Your task to perform on an android device: What's the weather going to be this weekend? Image 0: 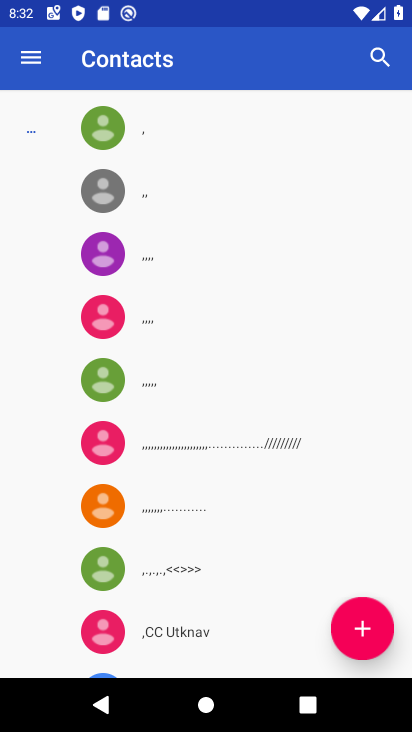
Step 0: press home button
Your task to perform on an android device: What's the weather going to be this weekend? Image 1: 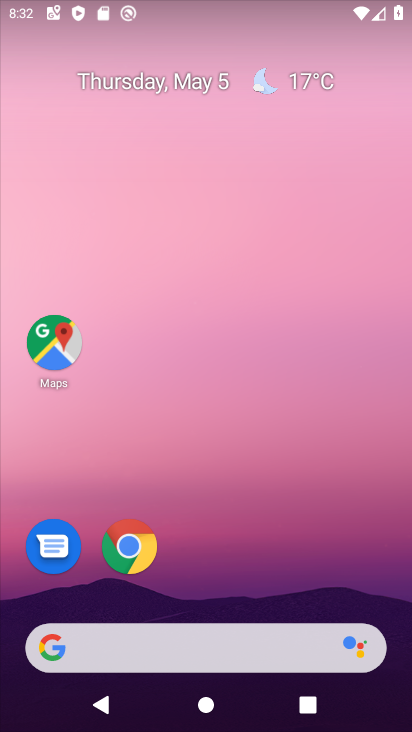
Step 1: click (304, 87)
Your task to perform on an android device: What's the weather going to be this weekend? Image 2: 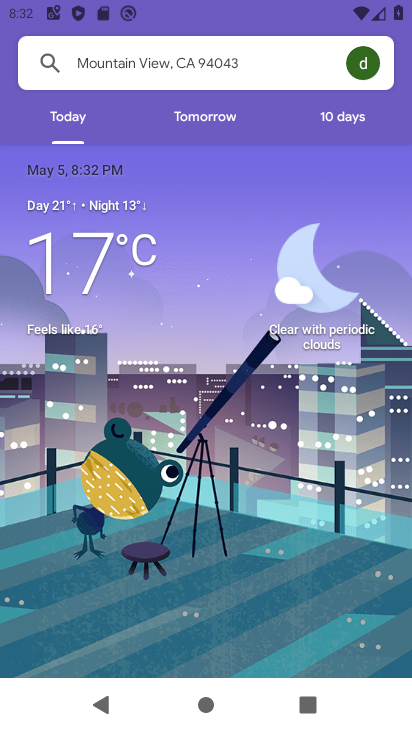
Step 2: click (348, 117)
Your task to perform on an android device: What's the weather going to be this weekend? Image 3: 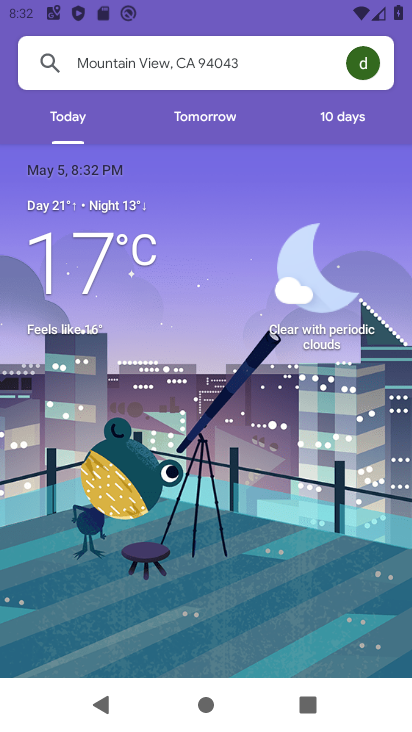
Step 3: click (341, 120)
Your task to perform on an android device: What's the weather going to be this weekend? Image 4: 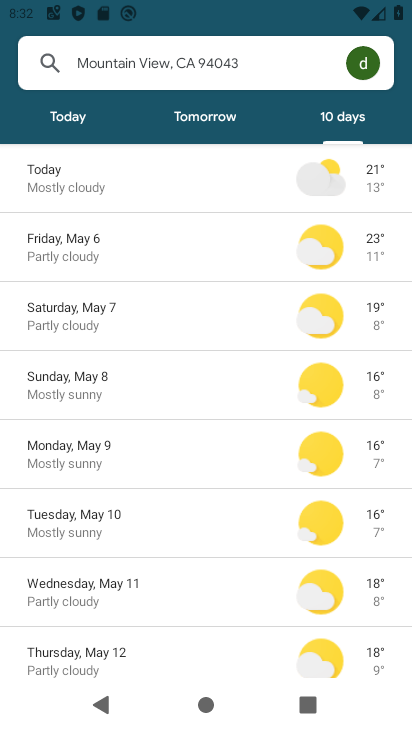
Step 4: click (104, 324)
Your task to perform on an android device: What's the weather going to be this weekend? Image 5: 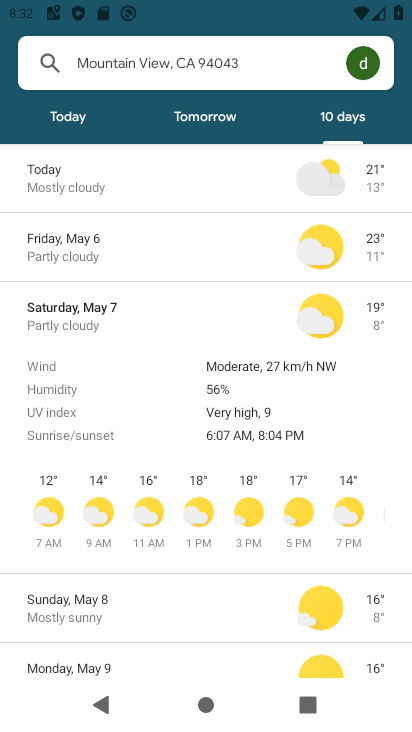
Step 5: task complete